Your task to perform on an android device: Open Google Maps and go to "Timeline" Image 0: 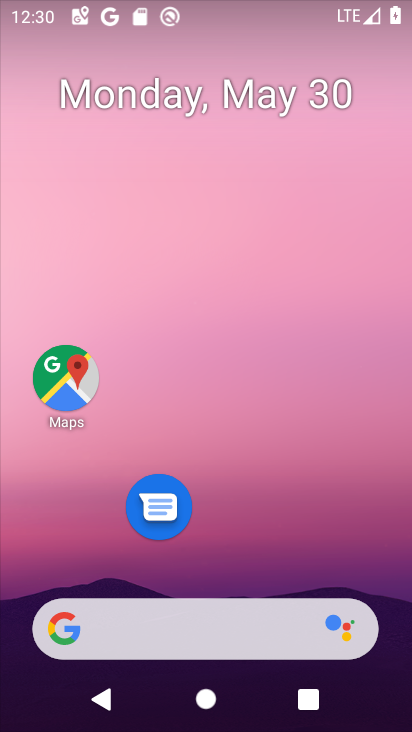
Step 0: drag from (306, 538) to (262, 62)
Your task to perform on an android device: Open Google Maps and go to "Timeline" Image 1: 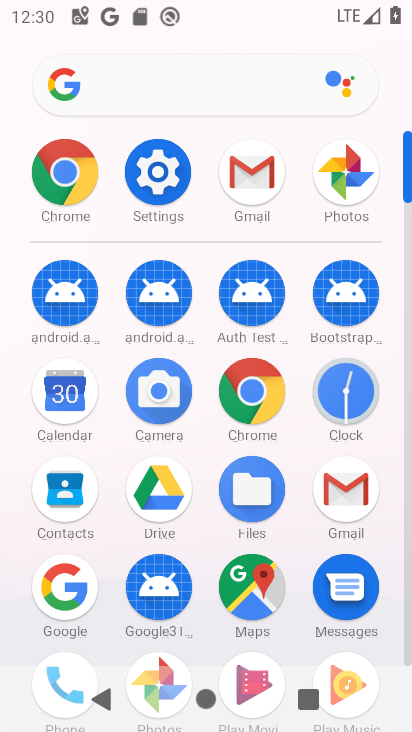
Step 1: click (253, 595)
Your task to perform on an android device: Open Google Maps and go to "Timeline" Image 2: 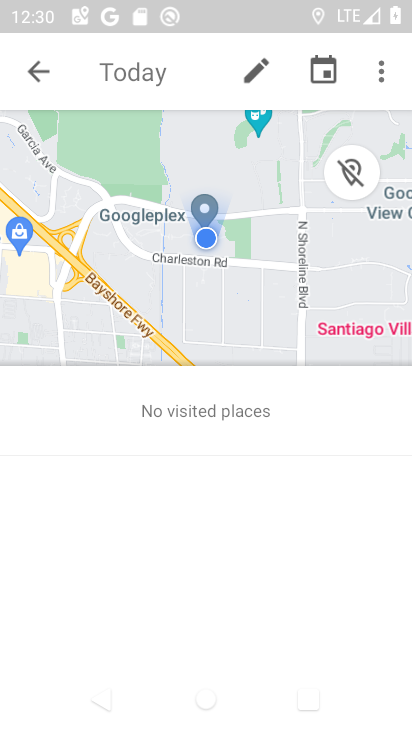
Step 2: click (34, 72)
Your task to perform on an android device: Open Google Maps and go to "Timeline" Image 3: 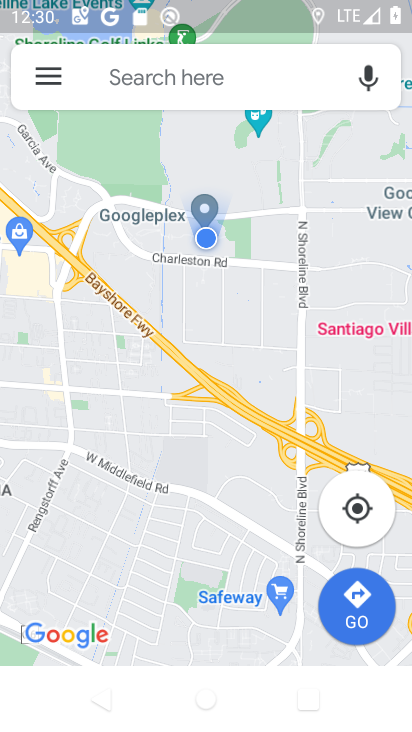
Step 3: click (34, 72)
Your task to perform on an android device: Open Google Maps and go to "Timeline" Image 4: 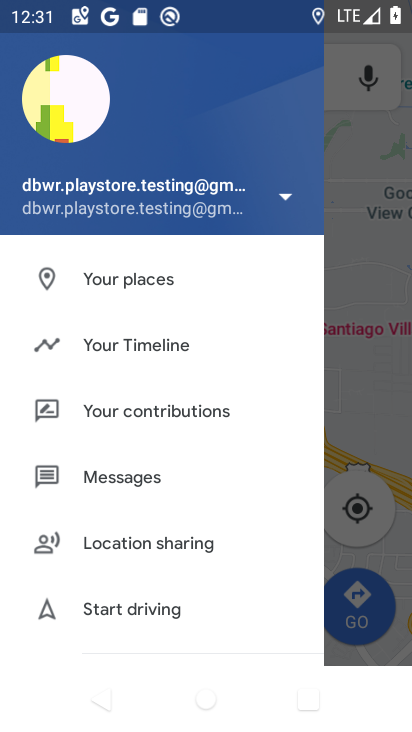
Step 4: click (174, 341)
Your task to perform on an android device: Open Google Maps and go to "Timeline" Image 5: 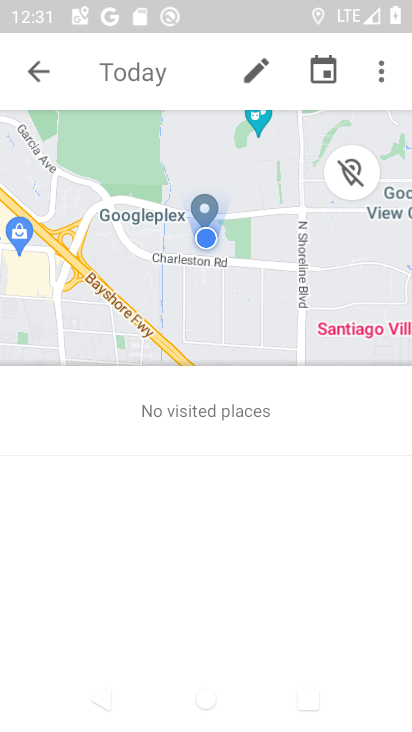
Step 5: task complete